Your task to perform on an android device: Open Android settings Image 0: 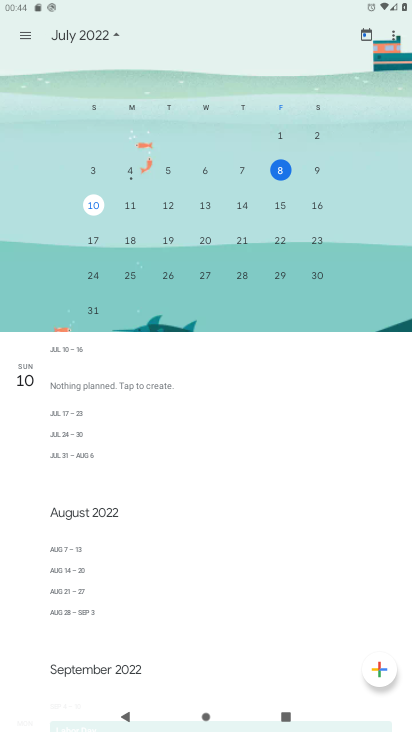
Step 0: press home button
Your task to perform on an android device: Open Android settings Image 1: 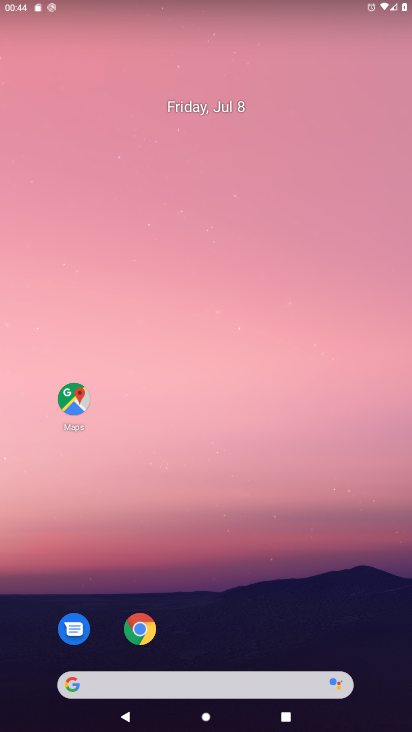
Step 1: drag from (306, 575) to (330, 33)
Your task to perform on an android device: Open Android settings Image 2: 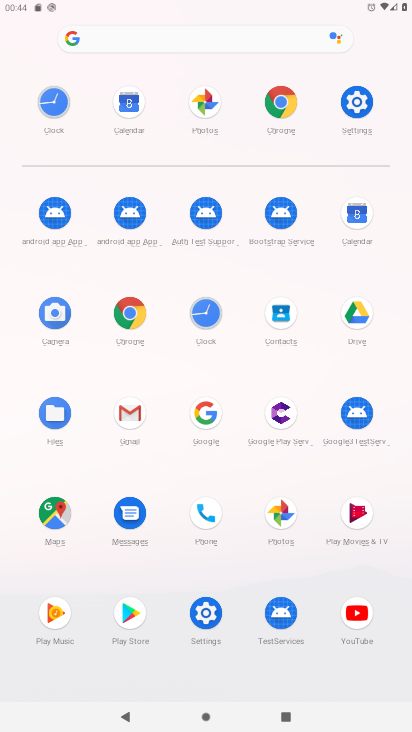
Step 2: click (352, 93)
Your task to perform on an android device: Open Android settings Image 3: 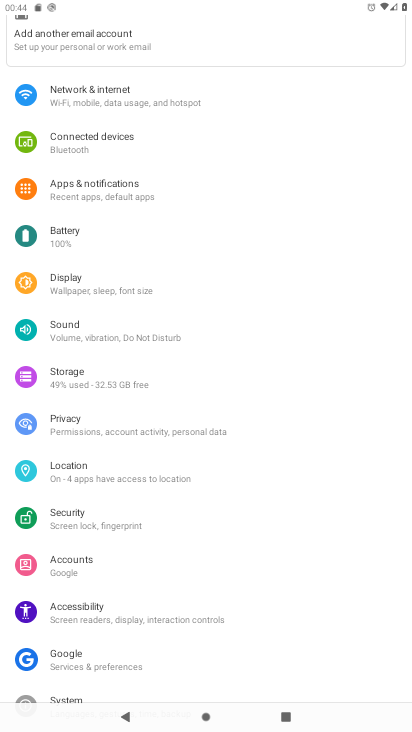
Step 3: drag from (148, 678) to (143, 316)
Your task to perform on an android device: Open Android settings Image 4: 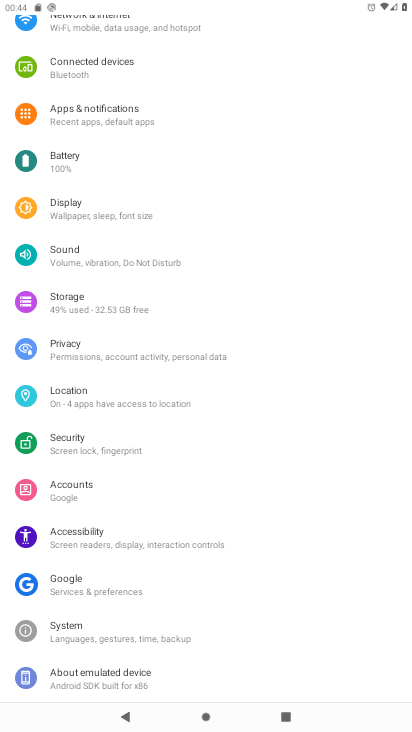
Step 4: click (67, 628)
Your task to perform on an android device: Open Android settings Image 5: 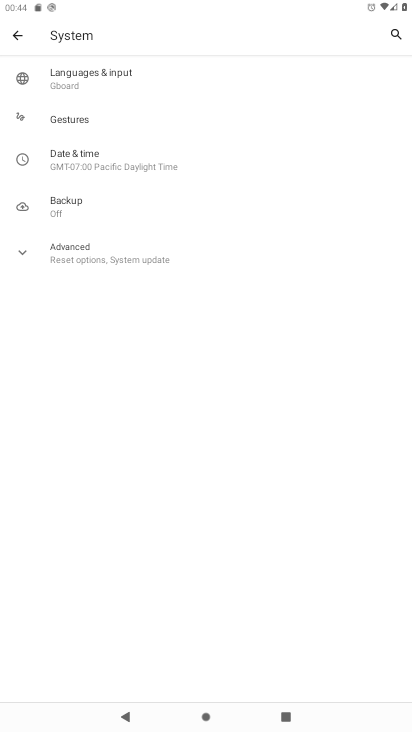
Step 5: task complete